Your task to perform on an android device: uninstall "DoorDash - Dasher" Image 0: 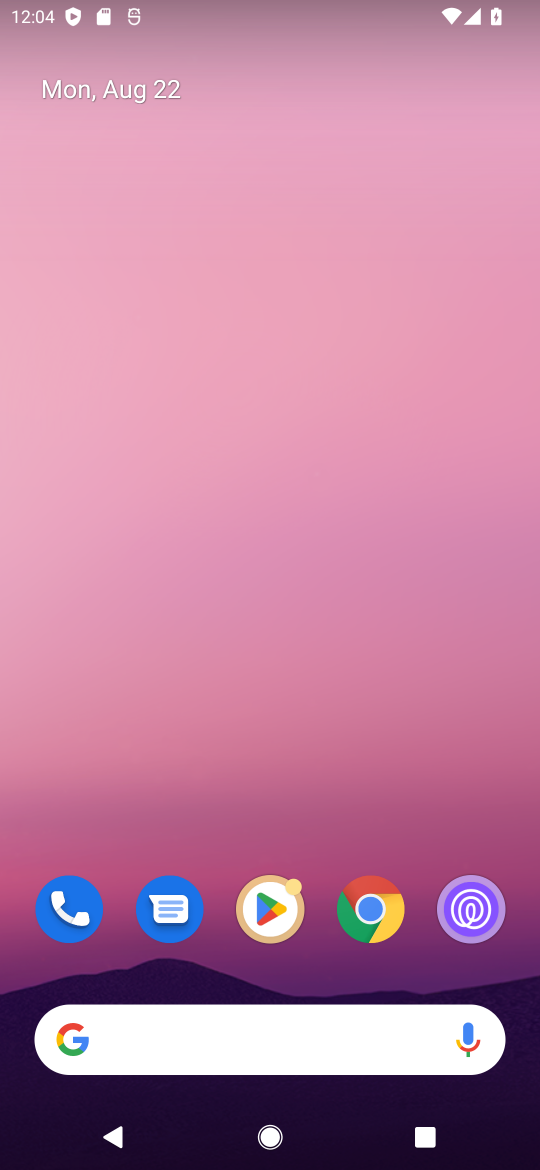
Step 0: click (267, 918)
Your task to perform on an android device: uninstall "DoorDash - Dasher" Image 1: 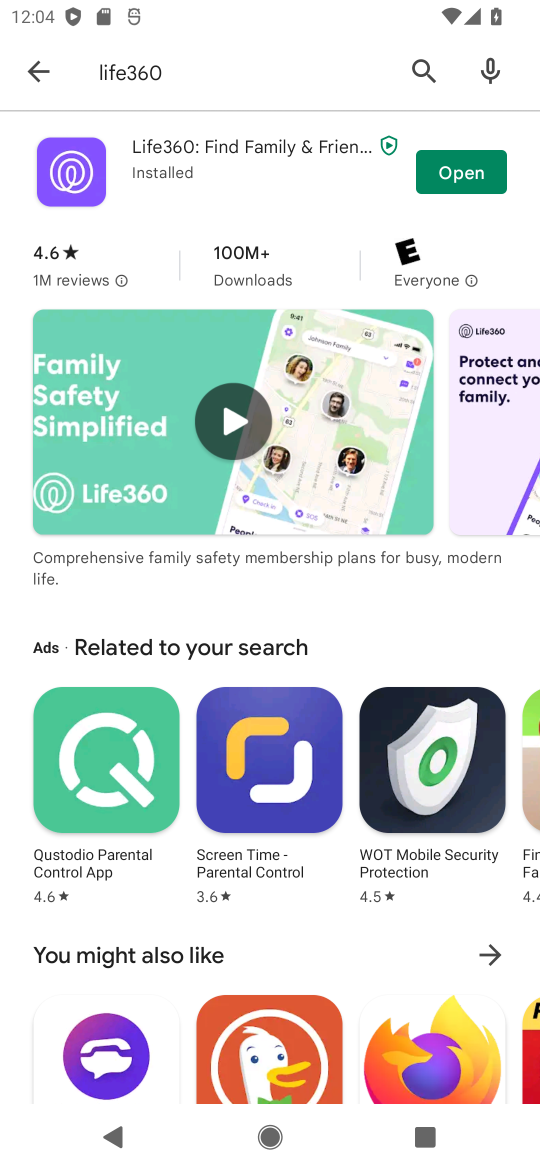
Step 1: click (418, 80)
Your task to perform on an android device: uninstall "DoorDash - Dasher" Image 2: 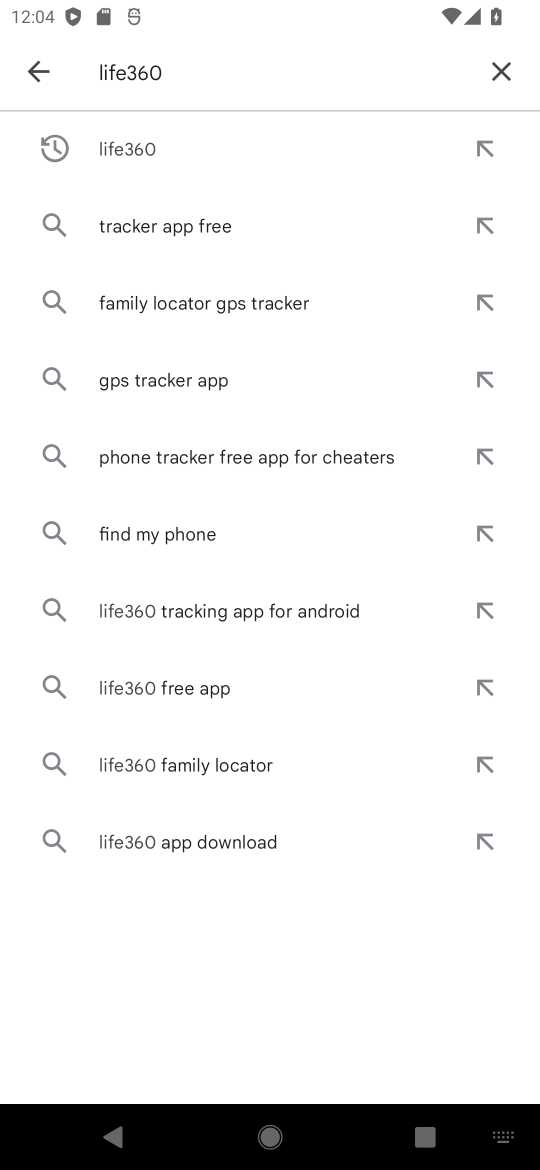
Step 2: click (492, 60)
Your task to perform on an android device: uninstall "DoorDash - Dasher" Image 3: 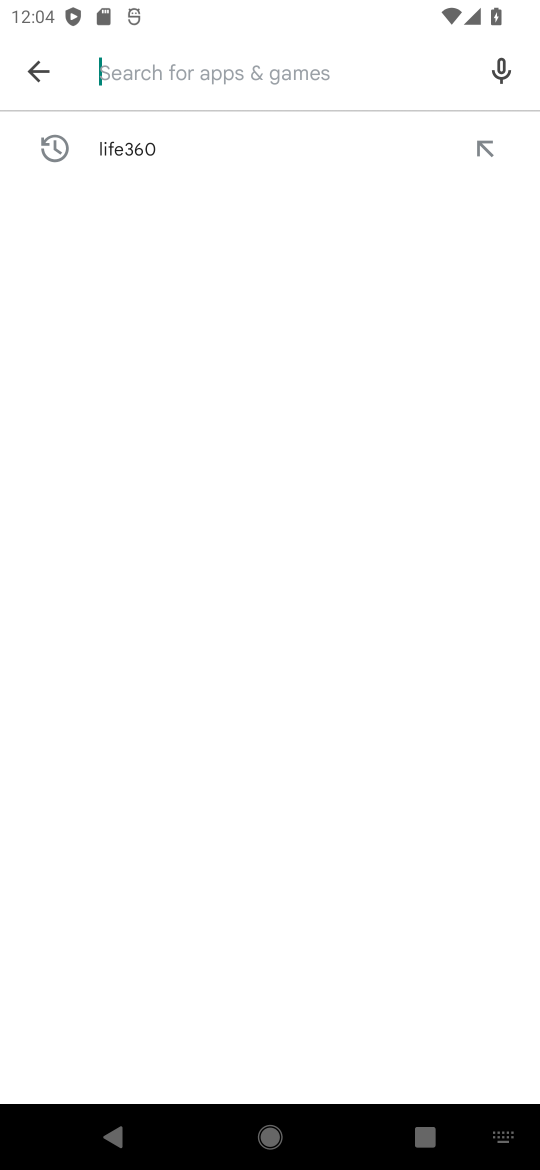
Step 3: type "doordash"
Your task to perform on an android device: uninstall "DoorDash - Dasher" Image 4: 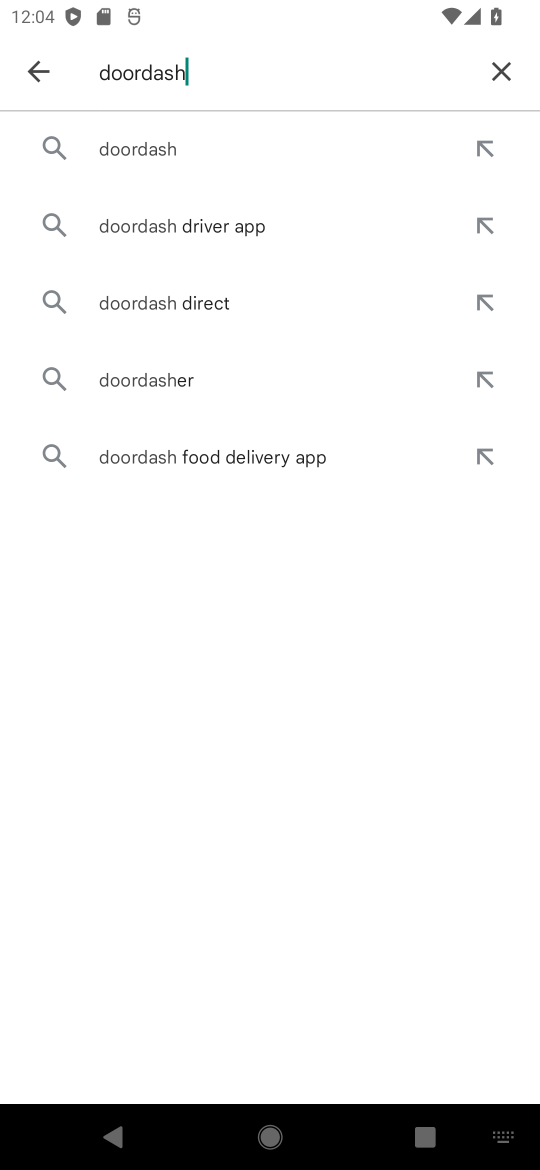
Step 4: click (138, 131)
Your task to perform on an android device: uninstall "DoorDash - Dasher" Image 5: 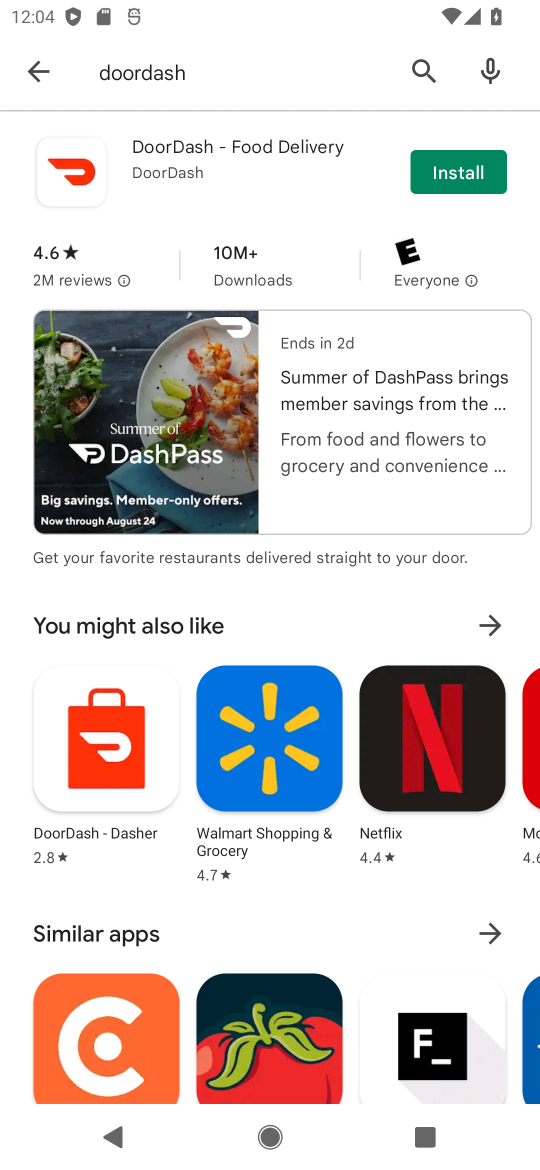
Step 5: click (226, 169)
Your task to perform on an android device: uninstall "DoorDash - Dasher" Image 6: 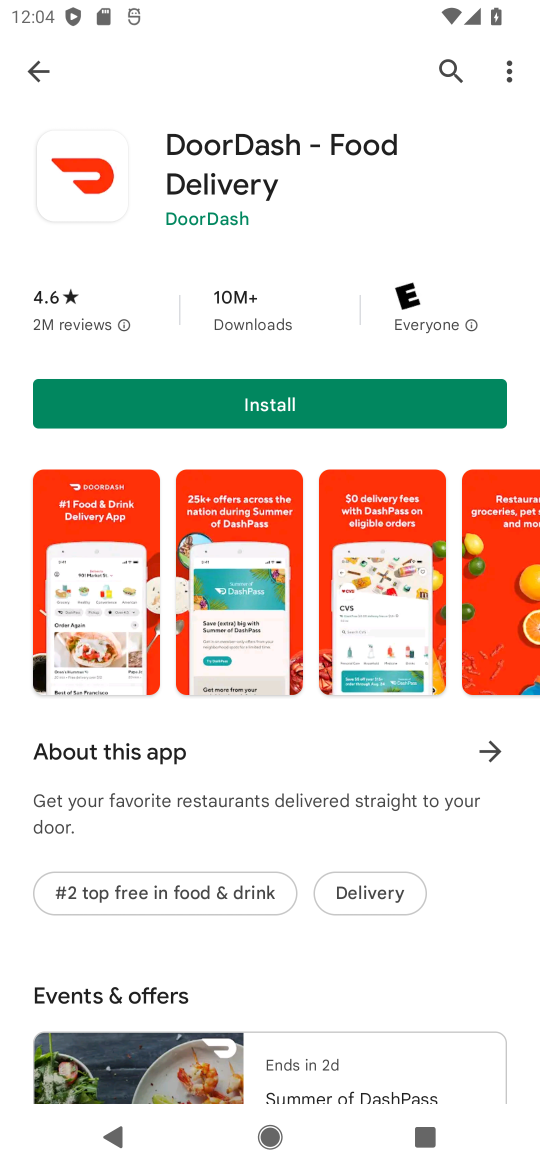
Step 6: task complete